Your task to perform on an android device: add a contact in the contacts app Image 0: 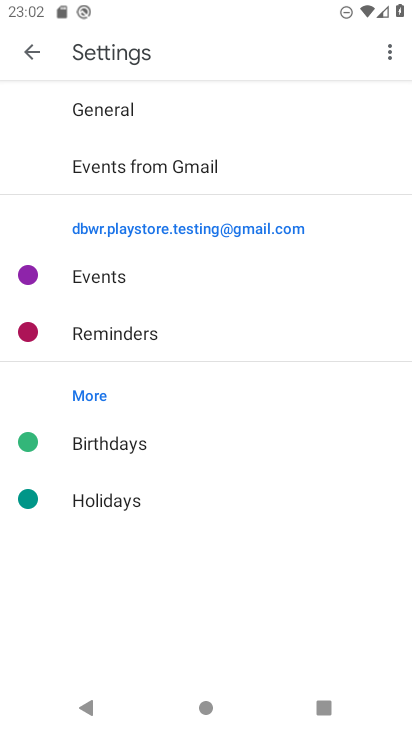
Step 0: press home button
Your task to perform on an android device: add a contact in the contacts app Image 1: 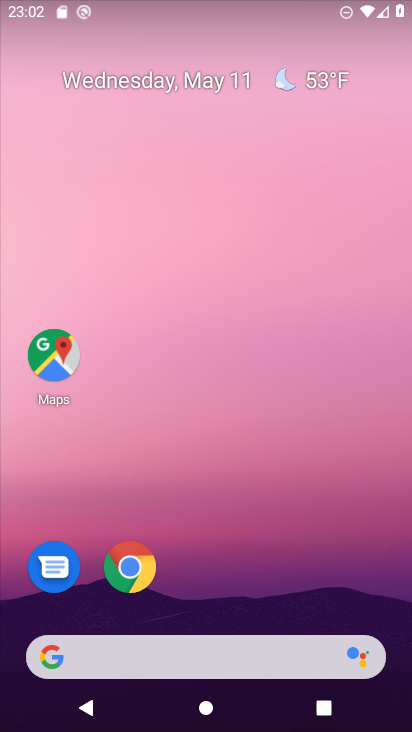
Step 1: drag from (260, 714) to (215, 127)
Your task to perform on an android device: add a contact in the contacts app Image 2: 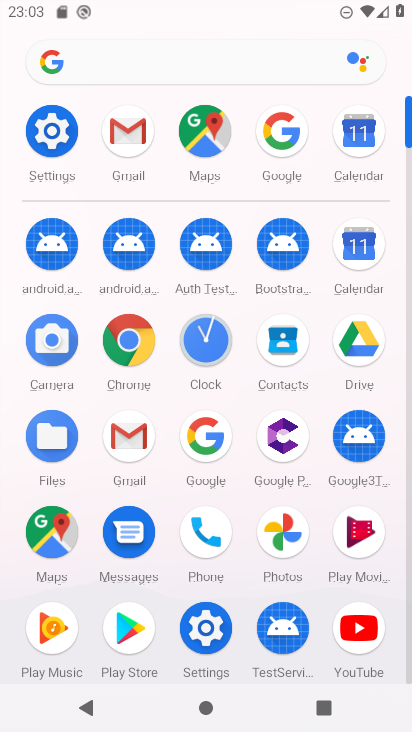
Step 2: click (290, 339)
Your task to perform on an android device: add a contact in the contacts app Image 3: 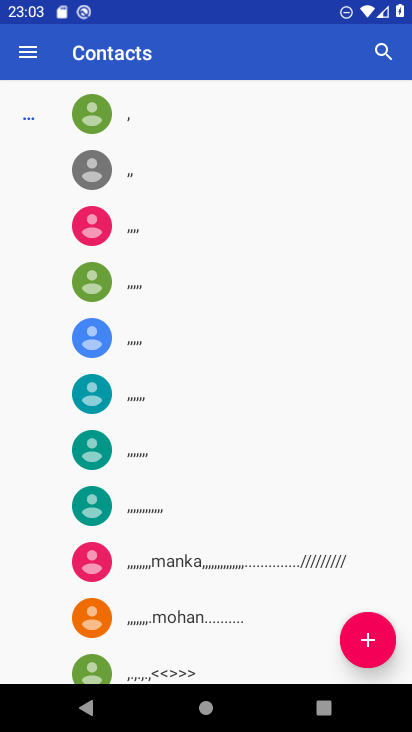
Step 3: click (363, 645)
Your task to perform on an android device: add a contact in the contacts app Image 4: 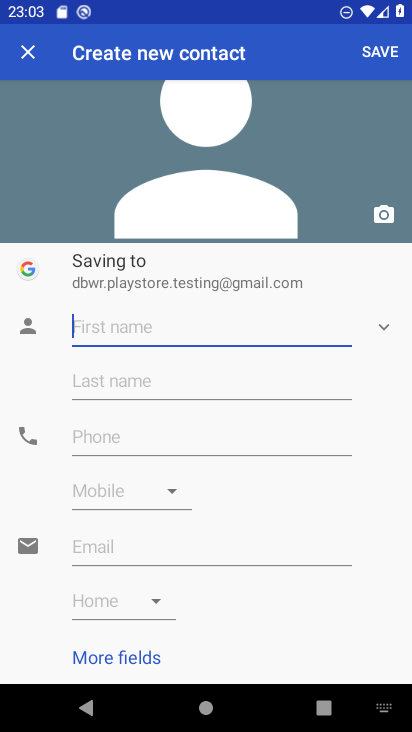
Step 4: type "uui"
Your task to perform on an android device: add a contact in the contacts app Image 5: 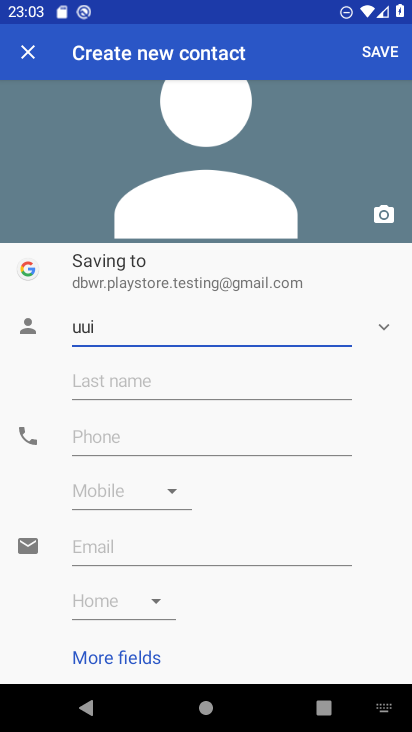
Step 5: click (97, 440)
Your task to perform on an android device: add a contact in the contacts app Image 6: 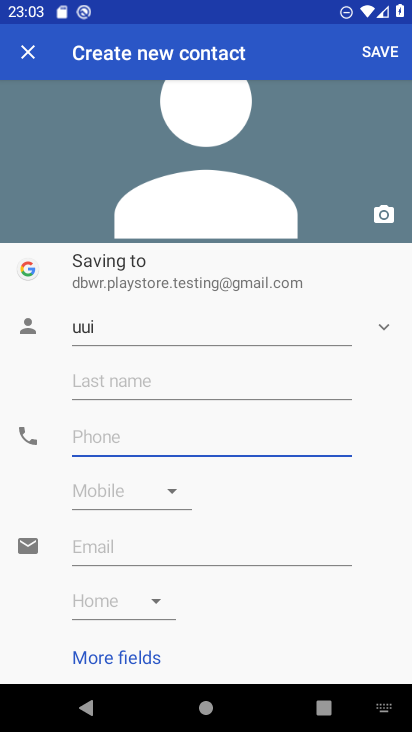
Step 6: click (117, 438)
Your task to perform on an android device: add a contact in the contacts app Image 7: 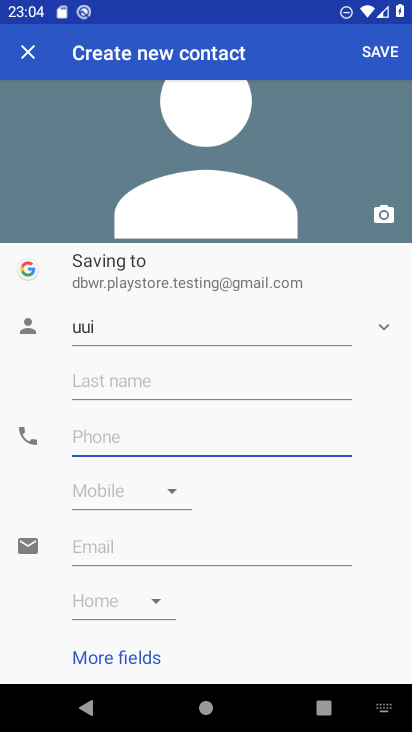
Step 7: type "889"
Your task to perform on an android device: add a contact in the contacts app Image 8: 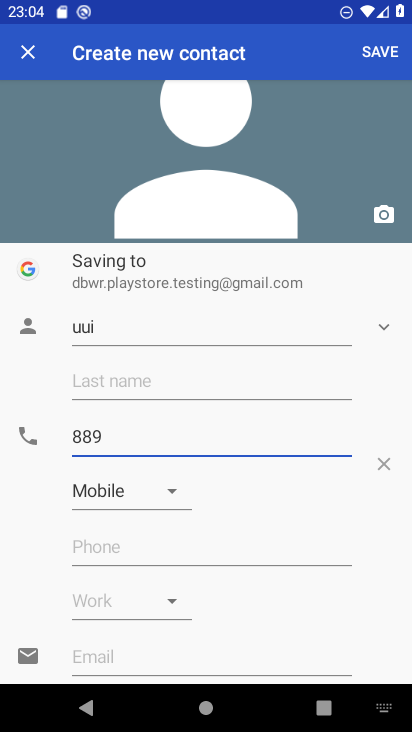
Step 8: click (382, 50)
Your task to perform on an android device: add a contact in the contacts app Image 9: 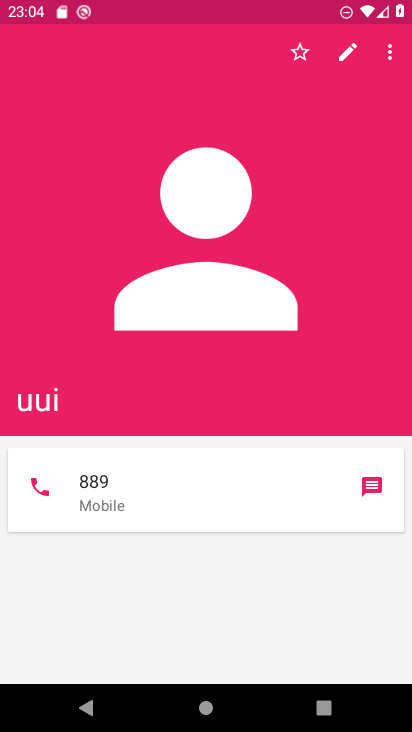
Step 9: task complete